Your task to perform on an android device: toggle sleep mode Image 0: 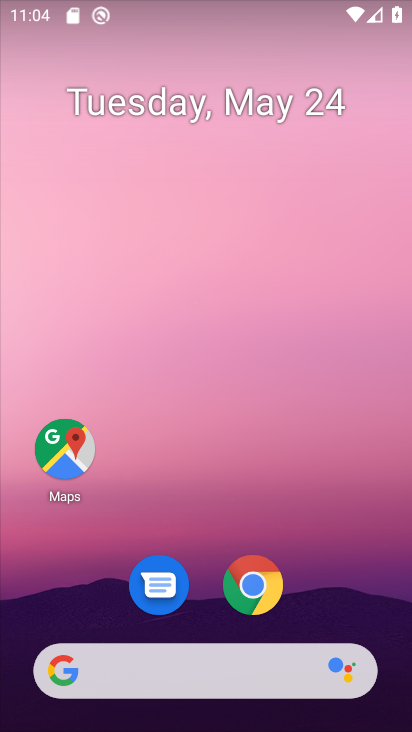
Step 0: drag from (330, 494) to (311, 0)
Your task to perform on an android device: toggle sleep mode Image 1: 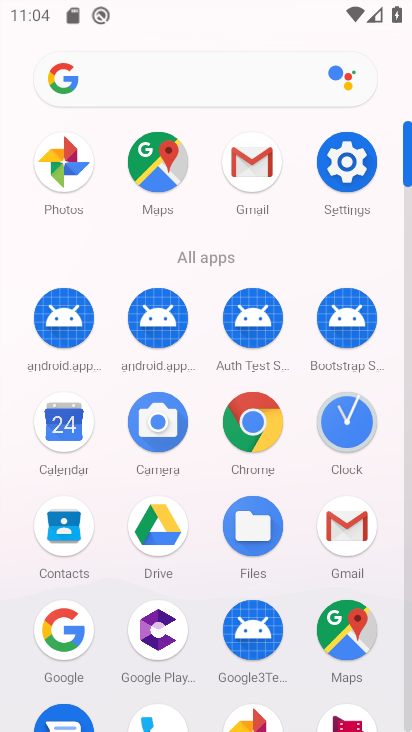
Step 1: click (344, 144)
Your task to perform on an android device: toggle sleep mode Image 2: 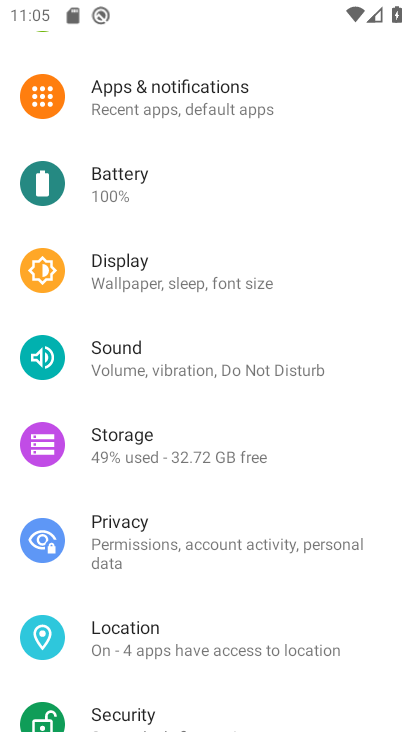
Step 2: click (234, 268)
Your task to perform on an android device: toggle sleep mode Image 3: 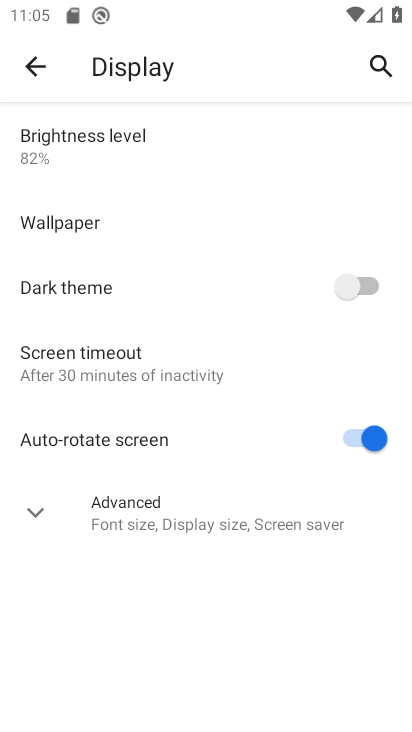
Step 3: click (40, 512)
Your task to perform on an android device: toggle sleep mode Image 4: 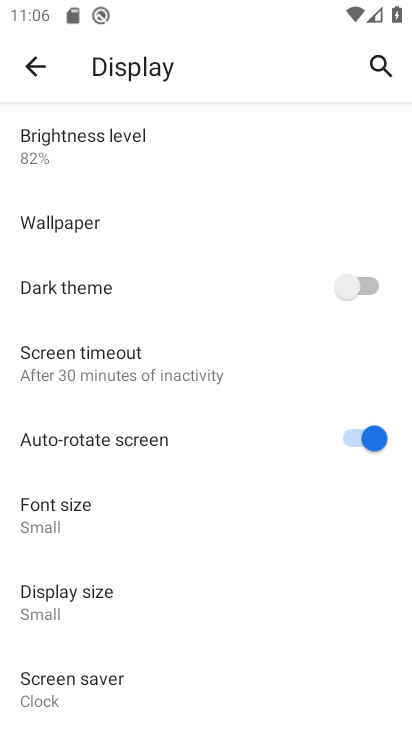
Step 4: task complete